Your task to perform on an android device: turn on showing notifications on the lock screen Image 0: 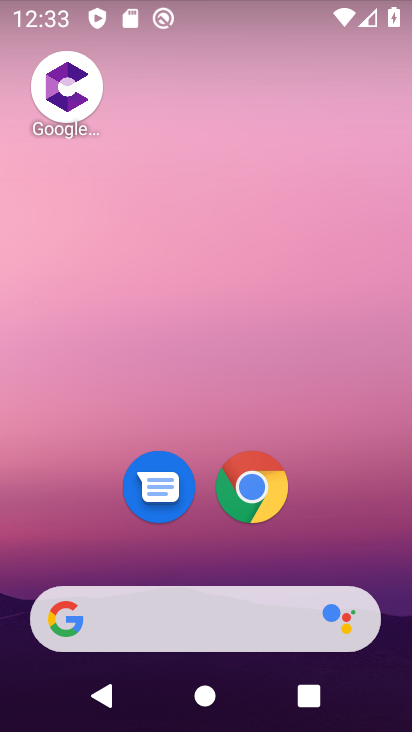
Step 0: drag from (314, 546) to (295, 105)
Your task to perform on an android device: turn on showing notifications on the lock screen Image 1: 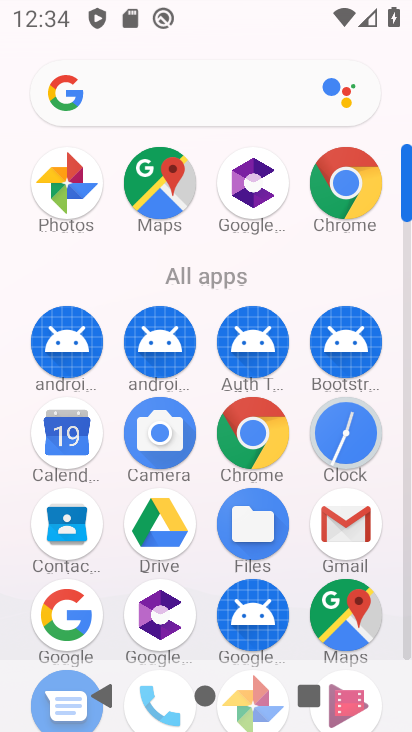
Step 1: drag from (390, 495) to (369, 315)
Your task to perform on an android device: turn on showing notifications on the lock screen Image 2: 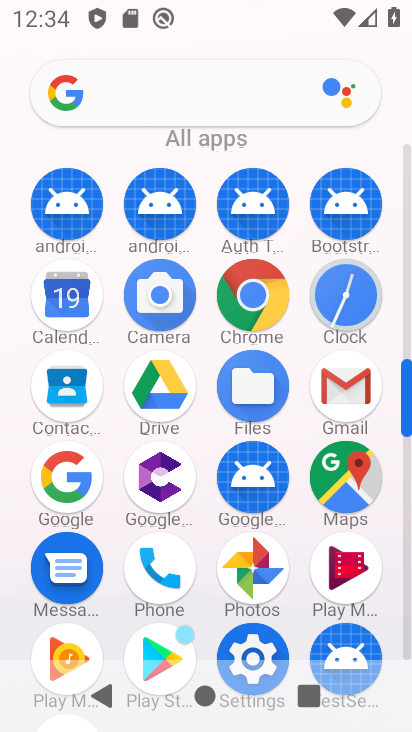
Step 2: drag from (312, 547) to (268, 413)
Your task to perform on an android device: turn on showing notifications on the lock screen Image 3: 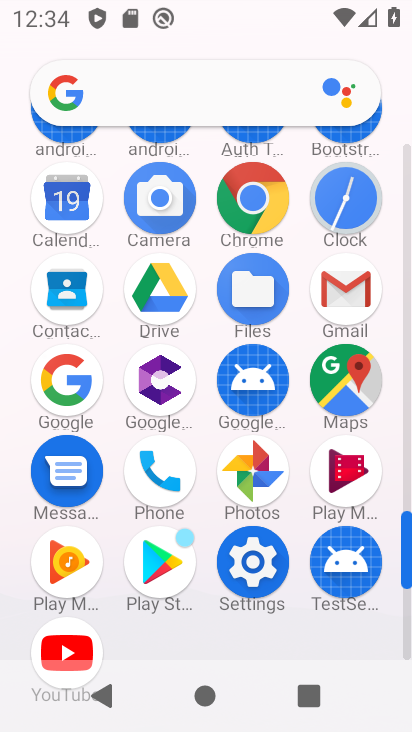
Step 3: click (267, 567)
Your task to perform on an android device: turn on showing notifications on the lock screen Image 4: 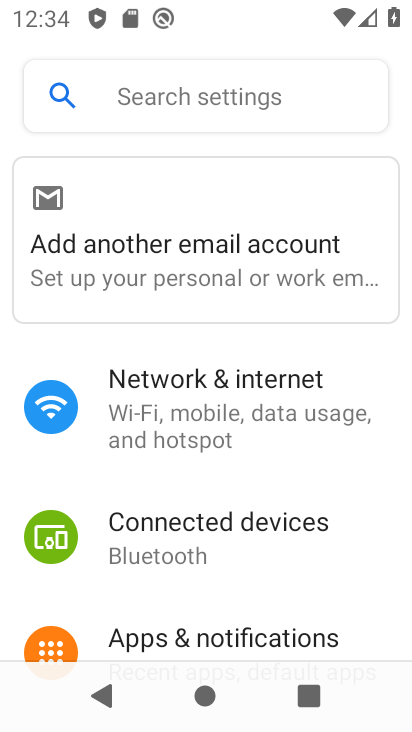
Step 4: drag from (180, 558) to (186, 364)
Your task to perform on an android device: turn on showing notifications on the lock screen Image 5: 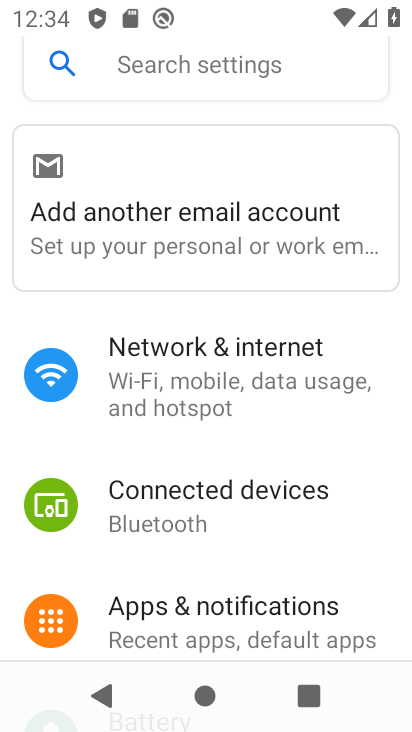
Step 5: click (139, 593)
Your task to perform on an android device: turn on showing notifications on the lock screen Image 6: 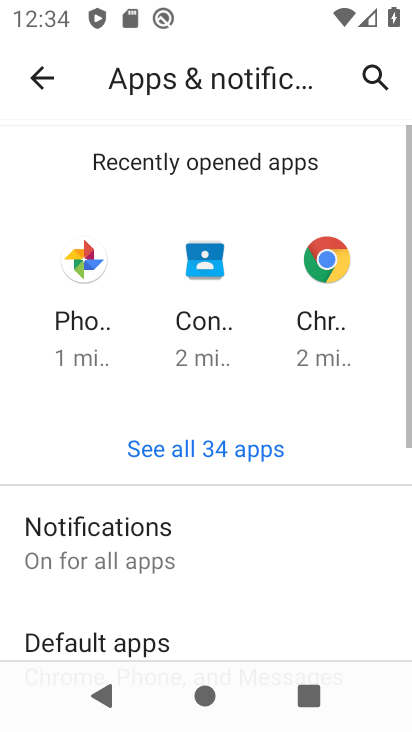
Step 6: click (118, 545)
Your task to perform on an android device: turn on showing notifications on the lock screen Image 7: 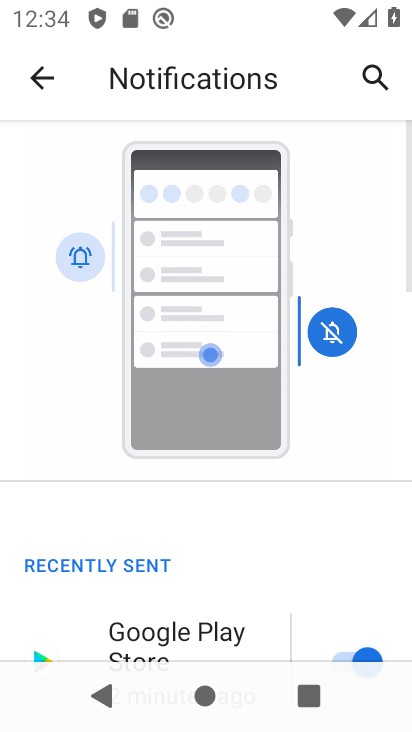
Step 7: drag from (108, 583) to (148, 128)
Your task to perform on an android device: turn on showing notifications on the lock screen Image 8: 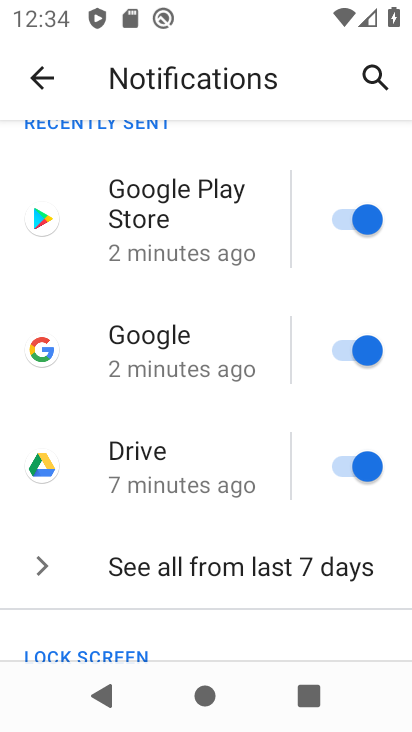
Step 8: drag from (177, 625) to (256, 249)
Your task to perform on an android device: turn on showing notifications on the lock screen Image 9: 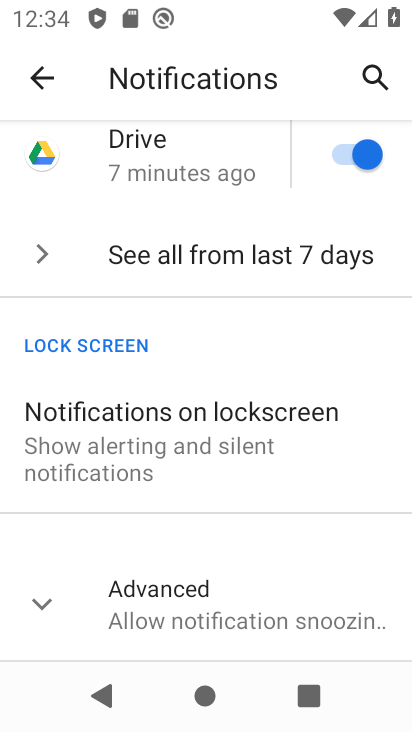
Step 9: click (171, 446)
Your task to perform on an android device: turn on showing notifications on the lock screen Image 10: 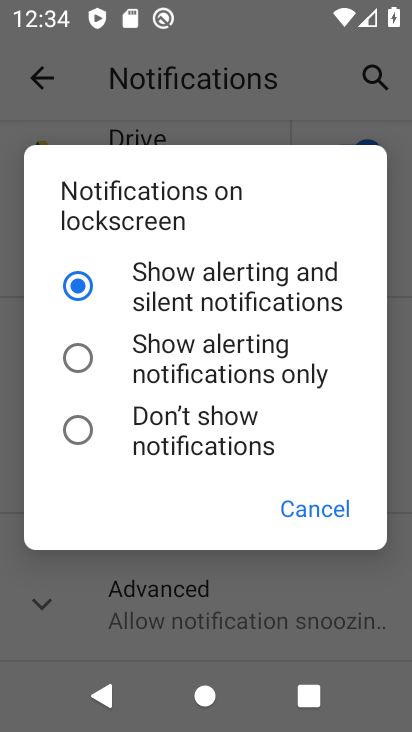
Step 10: click (145, 262)
Your task to perform on an android device: turn on showing notifications on the lock screen Image 11: 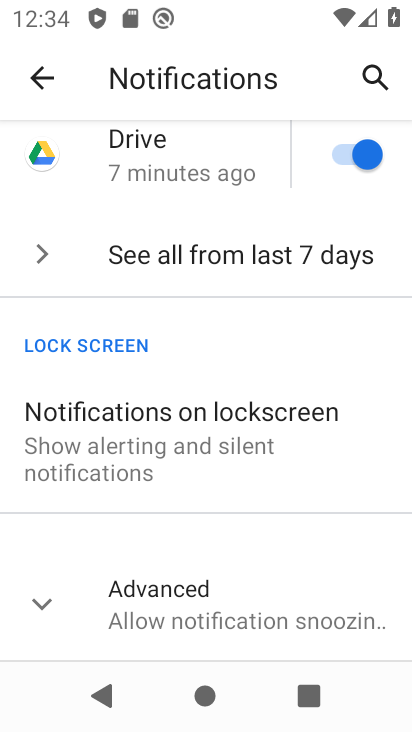
Step 11: task complete